Your task to perform on an android device: Go to settings Image 0: 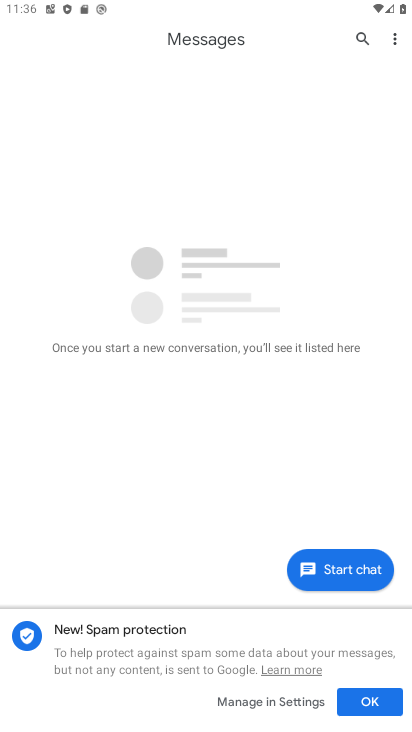
Step 0: drag from (233, 677) to (223, 255)
Your task to perform on an android device: Go to settings Image 1: 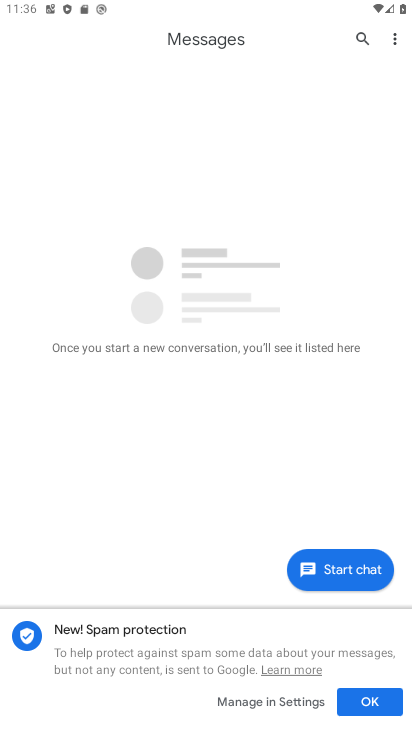
Step 1: press home button
Your task to perform on an android device: Go to settings Image 2: 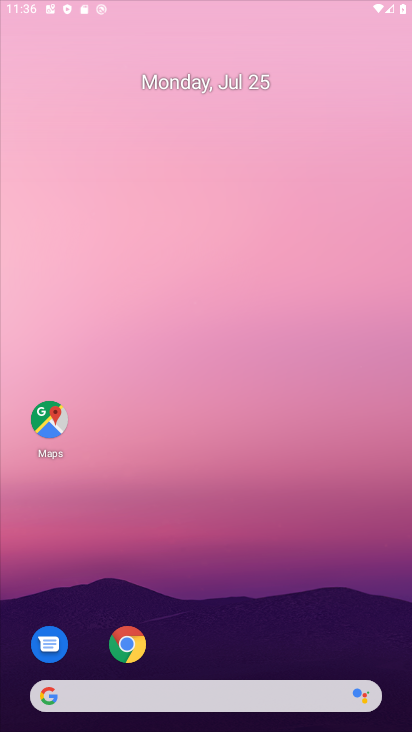
Step 2: drag from (246, 666) to (326, 142)
Your task to perform on an android device: Go to settings Image 3: 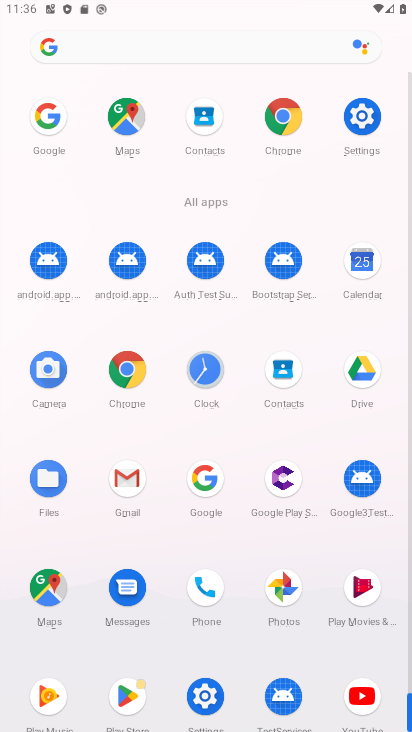
Step 3: click (374, 130)
Your task to perform on an android device: Go to settings Image 4: 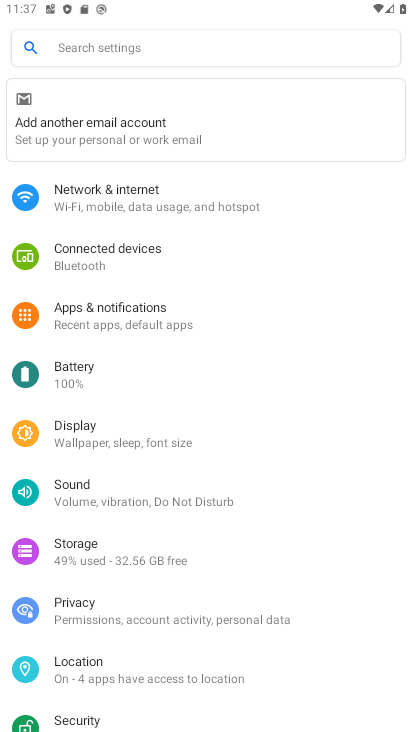
Step 4: task complete